Your task to perform on an android device: find photos in the google photos app Image 0: 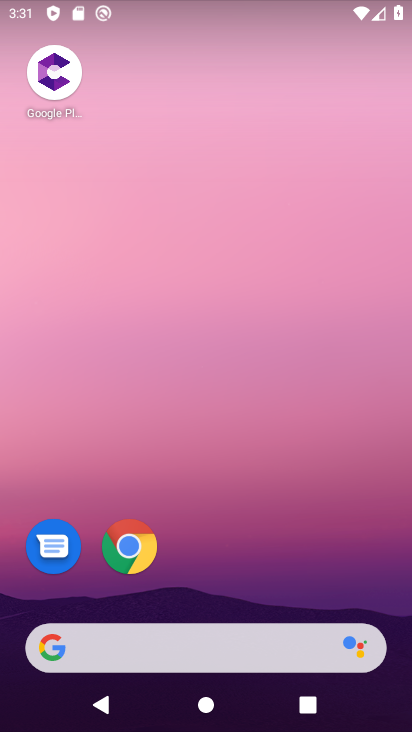
Step 0: drag from (248, 567) to (231, 4)
Your task to perform on an android device: find photos in the google photos app Image 1: 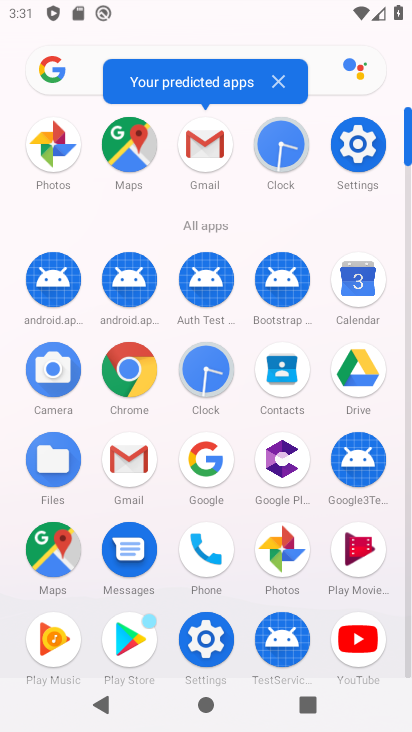
Step 1: click (63, 149)
Your task to perform on an android device: find photos in the google photos app Image 2: 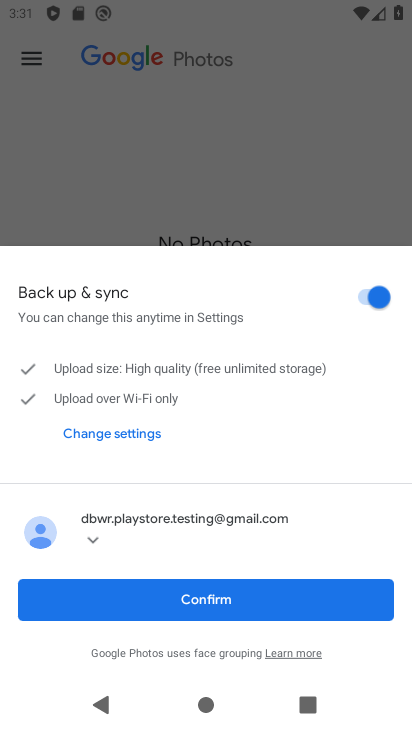
Step 2: click (198, 595)
Your task to perform on an android device: find photos in the google photos app Image 3: 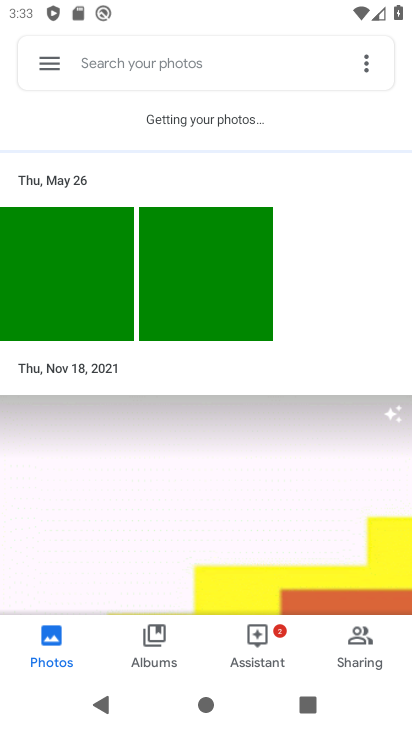
Step 3: task complete